Your task to perform on an android device: move a message to another label in the gmail app Image 0: 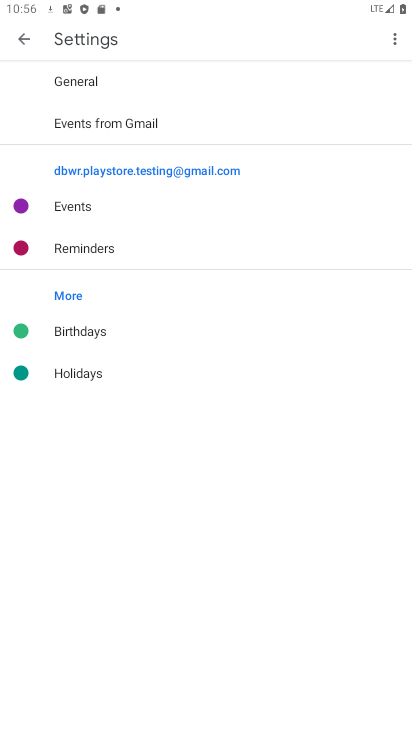
Step 0: press home button
Your task to perform on an android device: move a message to another label in the gmail app Image 1: 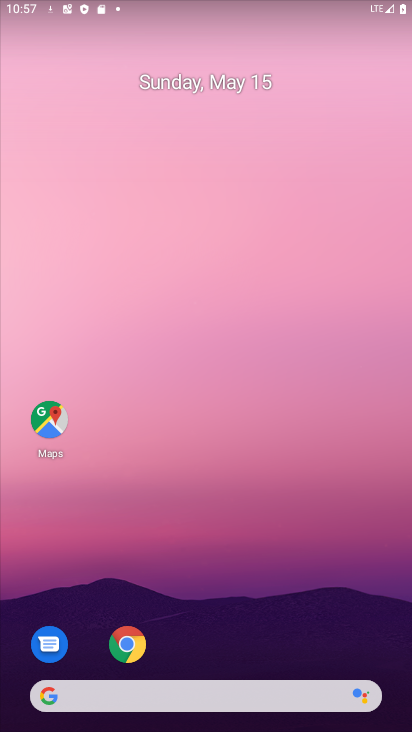
Step 1: drag from (306, 712) to (369, 242)
Your task to perform on an android device: move a message to another label in the gmail app Image 2: 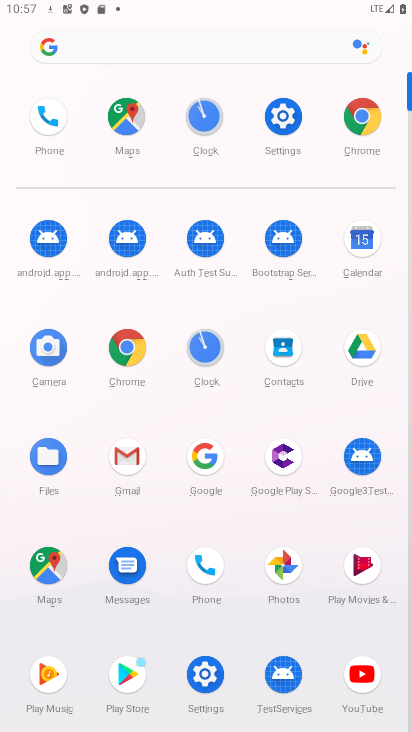
Step 2: click (136, 455)
Your task to perform on an android device: move a message to another label in the gmail app Image 3: 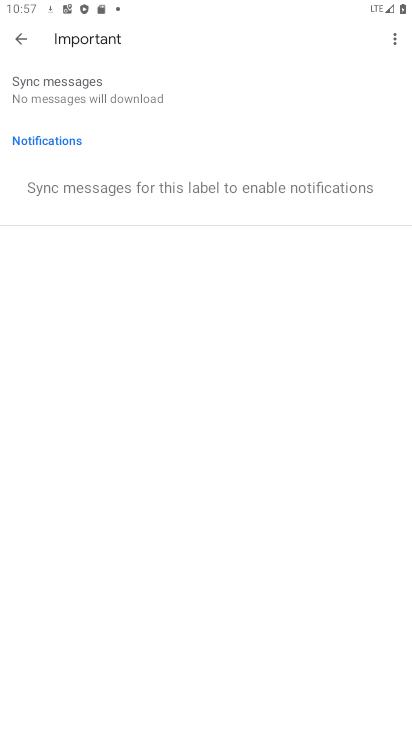
Step 3: click (26, 39)
Your task to perform on an android device: move a message to another label in the gmail app Image 4: 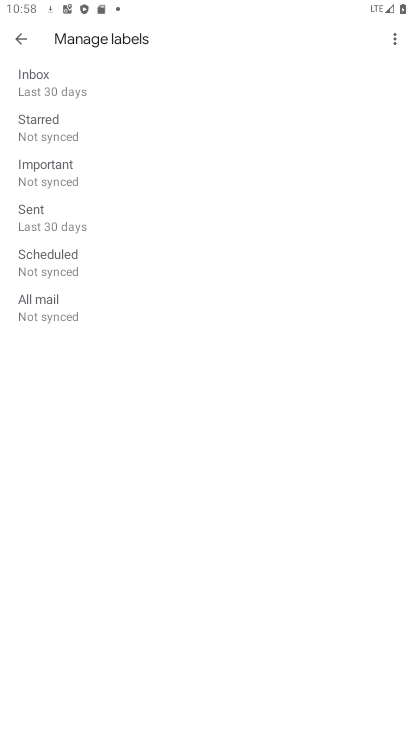
Step 4: click (134, 165)
Your task to perform on an android device: move a message to another label in the gmail app Image 5: 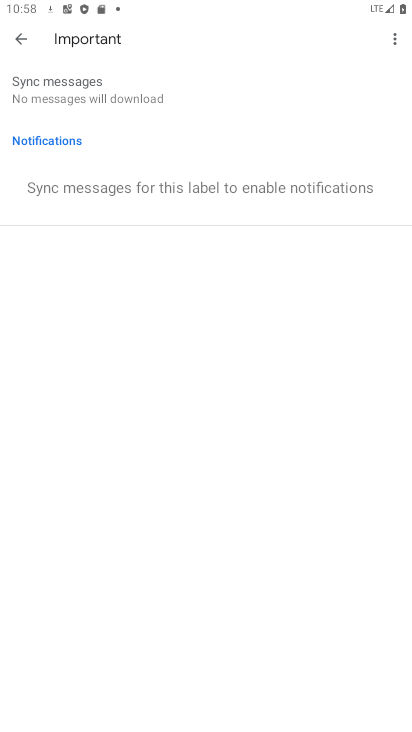
Step 5: task complete